Your task to perform on an android device: Open battery settings Image 0: 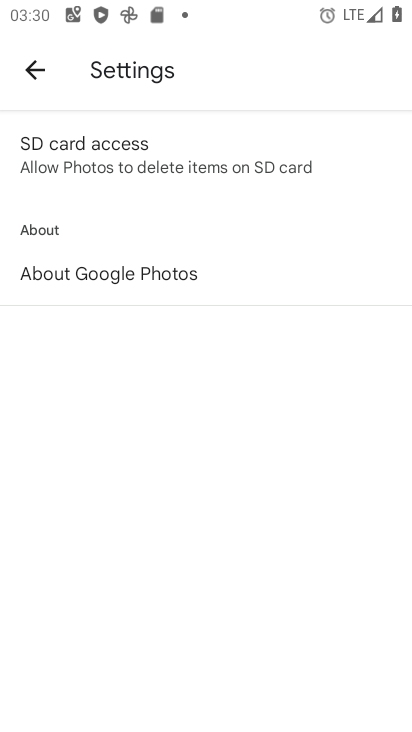
Step 0: press home button
Your task to perform on an android device: Open battery settings Image 1: 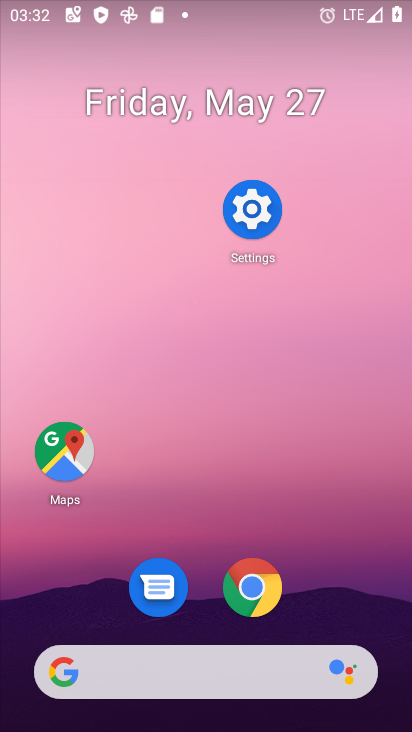
Step 1: press home button
Your task to perform on an android device: Open battery settings Image 2: 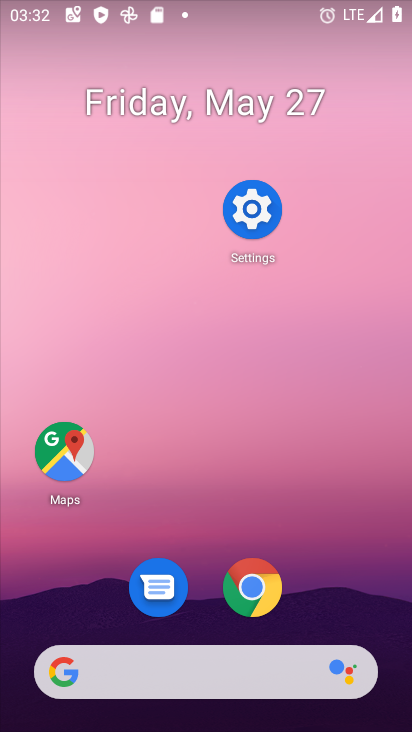
Step 2: click (251, 217)
Your task to perform on an android device: Open battery settings Image 3: 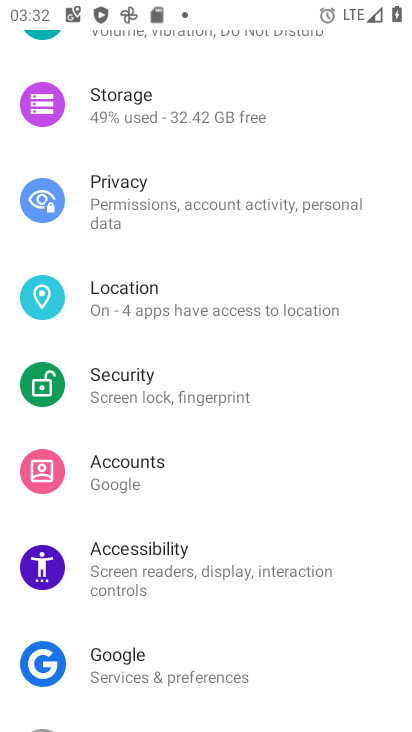
Step 3: drag from (276, 93) to (297, 501)
Your task to perform on an android device: Open battery settings Image 4: 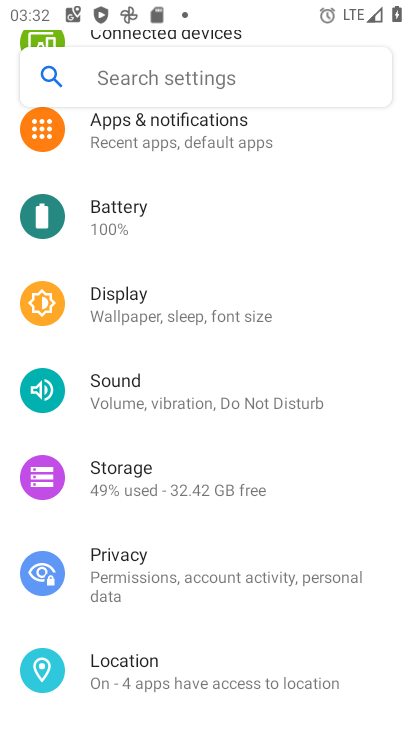
Step 4: click (127, 219)
Your task to perform on an android device: Open battery settings Image 5: 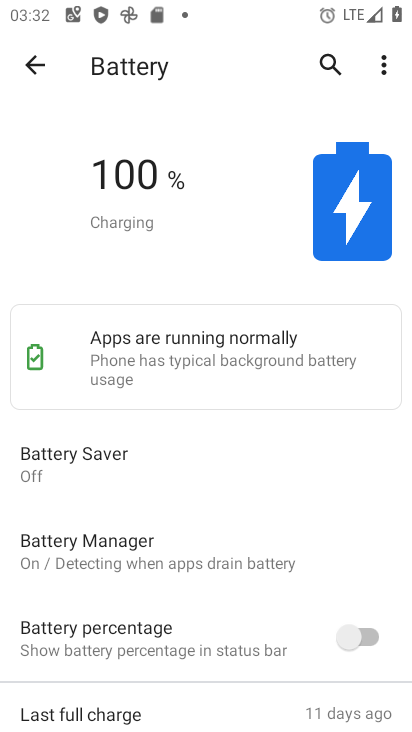
Step 5: task complete